Your task to perform on an android device: Go to Yahoo.com Image 0: 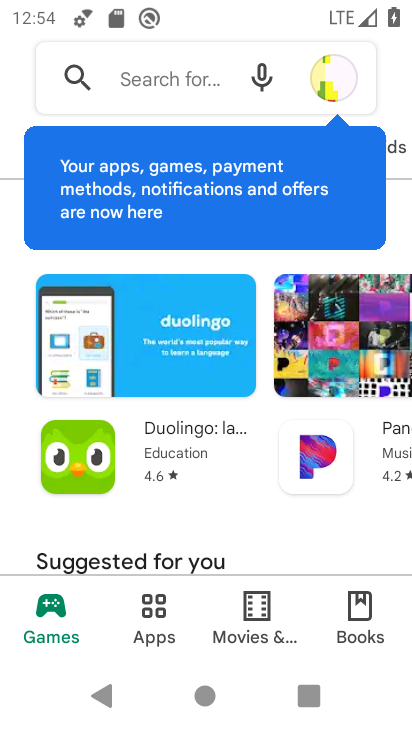
Step 0: press home button
Your task to perform on an android device: Go to Yahoo.com Image 1: 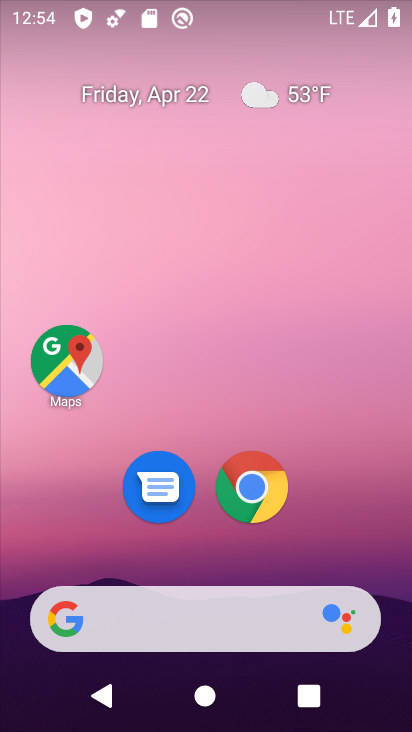
Step 1: click (253, 500)
Your task to perform on an android device: Go to Yahoo.com Image 2: 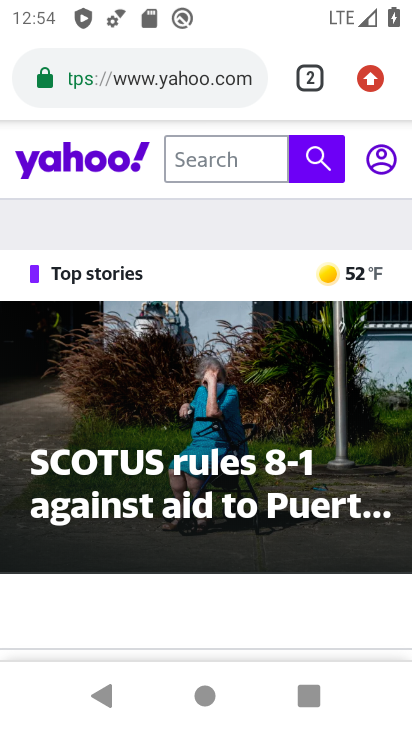
Step 2: task complete